Your task to perform on an android device: Go to Amazon Image 0: 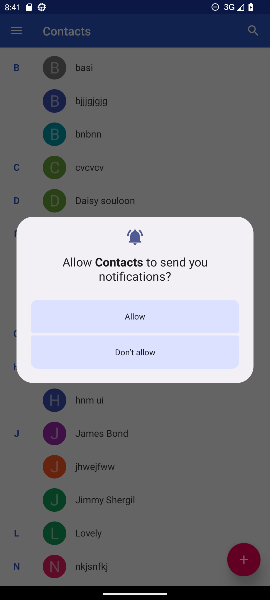
Step 0: press back button
Your task to perform on an android device: Go to Amazon Image 1: 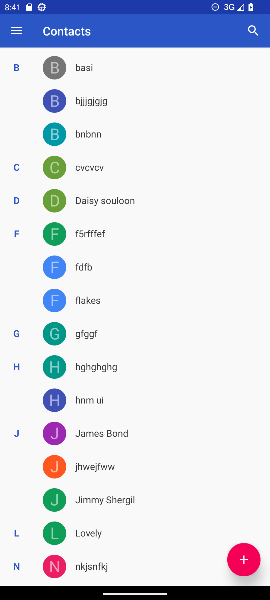
Step 1: press home button
Your task to perform on an android device: Go to Amazon Image 2: 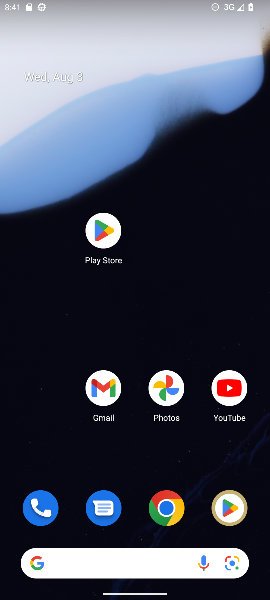
Step 2: drag from (144, 541) to (152, 9)
Your task to perform on an android device: Go to Amazon Image 3: 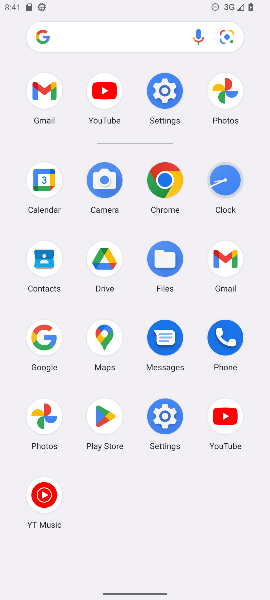
Step 3: click (153, 182)
Your task to perform on an android device: Go to Amazon Image 4: 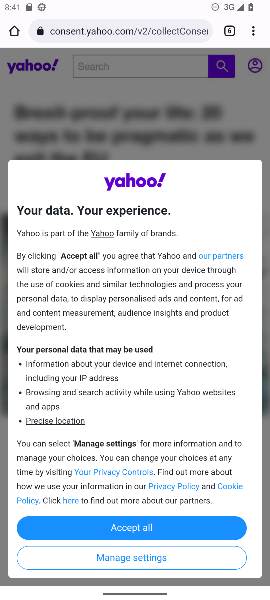
Step 4: click (226, 29)
Your task to perform on an android device: Go to Amazon Image 5: 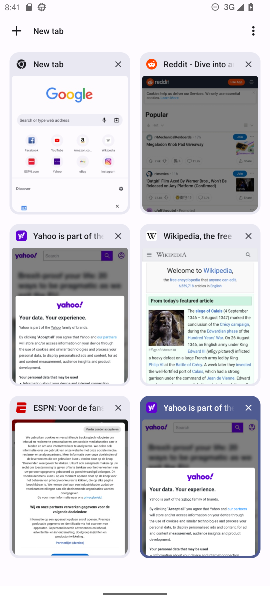
Step 5: click (8, 36)
Your task to perform on an android device: Go to Amazon Image 6: 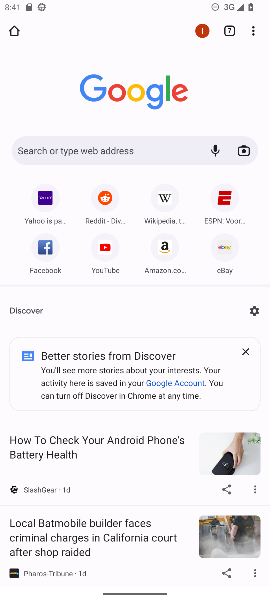
Step 6: click (156, 249)
Your task to perform on an android device: Go to Amazon Image 7: 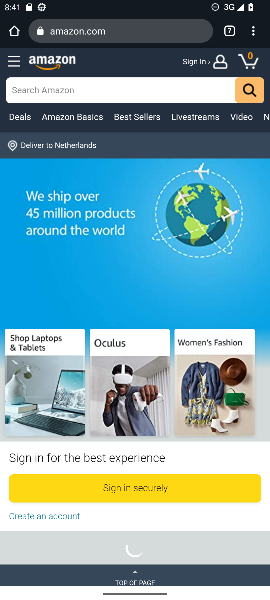
Step 7: task complete